Your task to perform on an android device: turn on notifications settings in the gmail app Image 0: 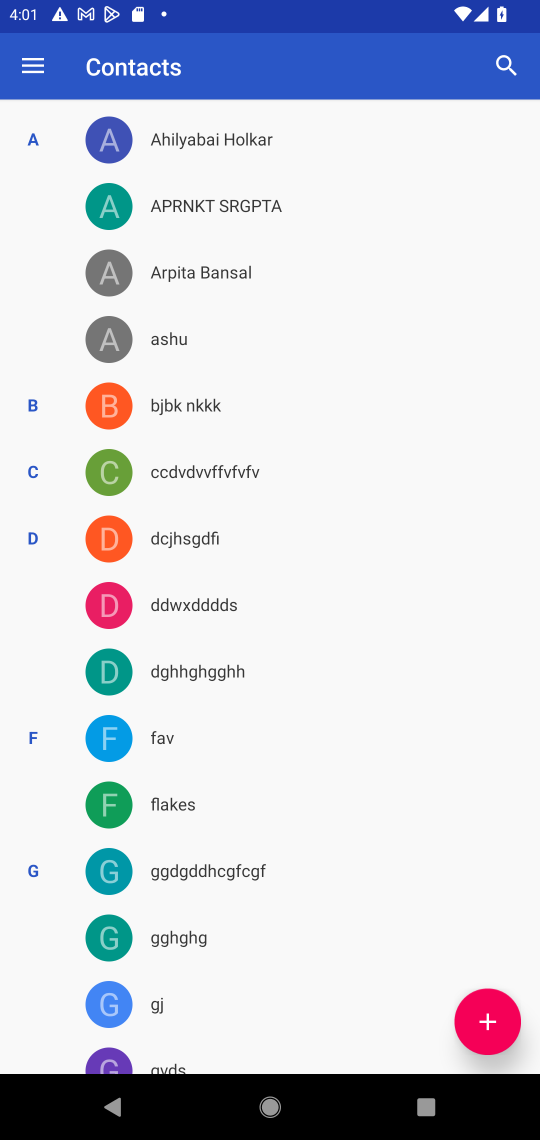
Step 0: press home button
Your task to perform on an android device: turn on notifications settings in the gmail app Image 1: 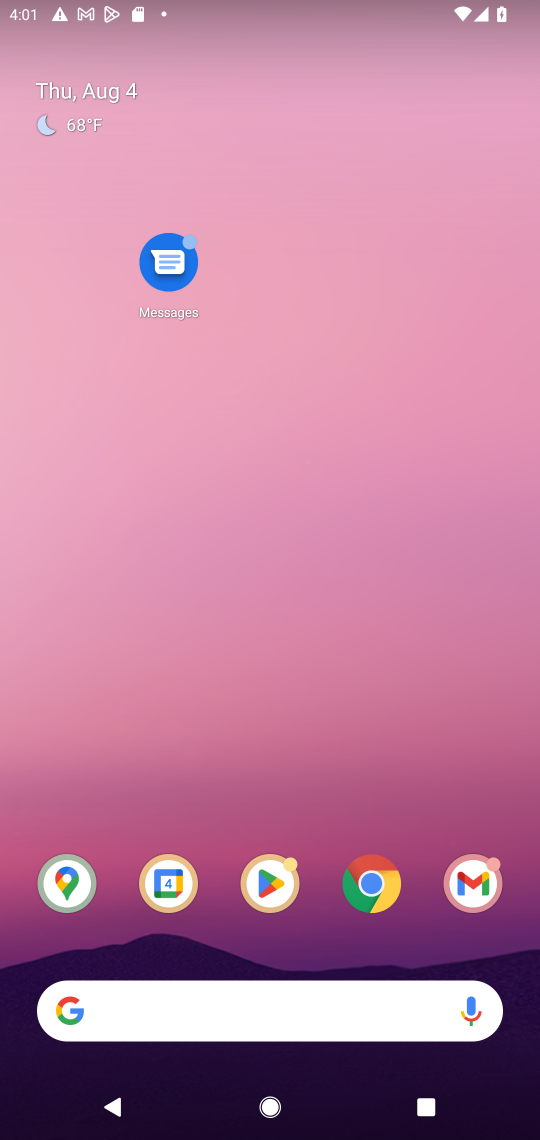
Step 1: drag from (328, 974) to (320, 88)
Your task to perform on an android device: turn on notifications settings in the gmail app Image 2: 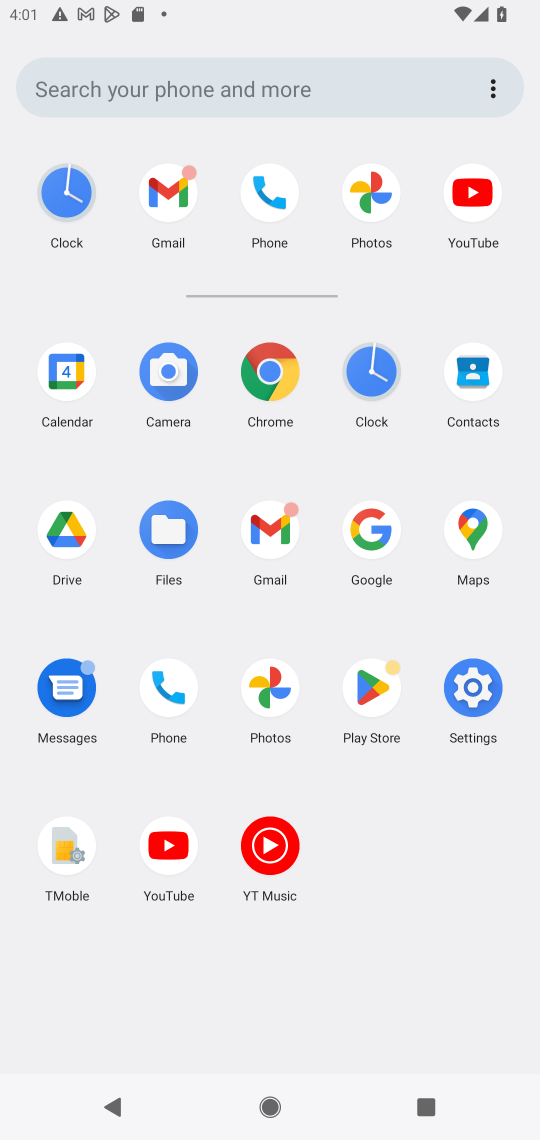
Step 2: click (271, 526)
Your task to perform on an android device: turn on notifications settings in the gmail app Image 3: 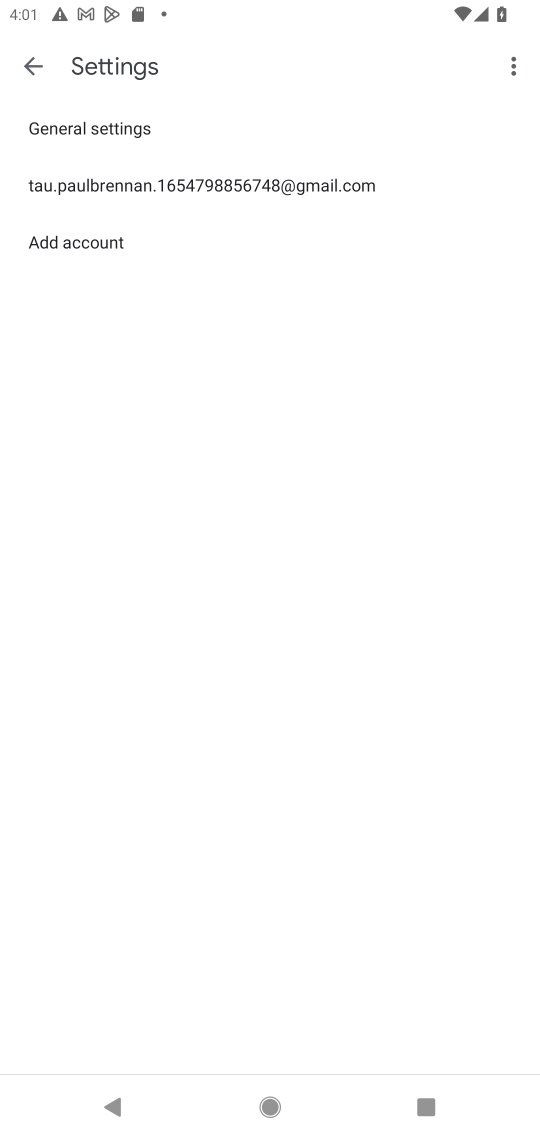
Step 3: click (126, 187)
Your task to perform on an android device: turn on notifications settings in the gmail app Image 4: 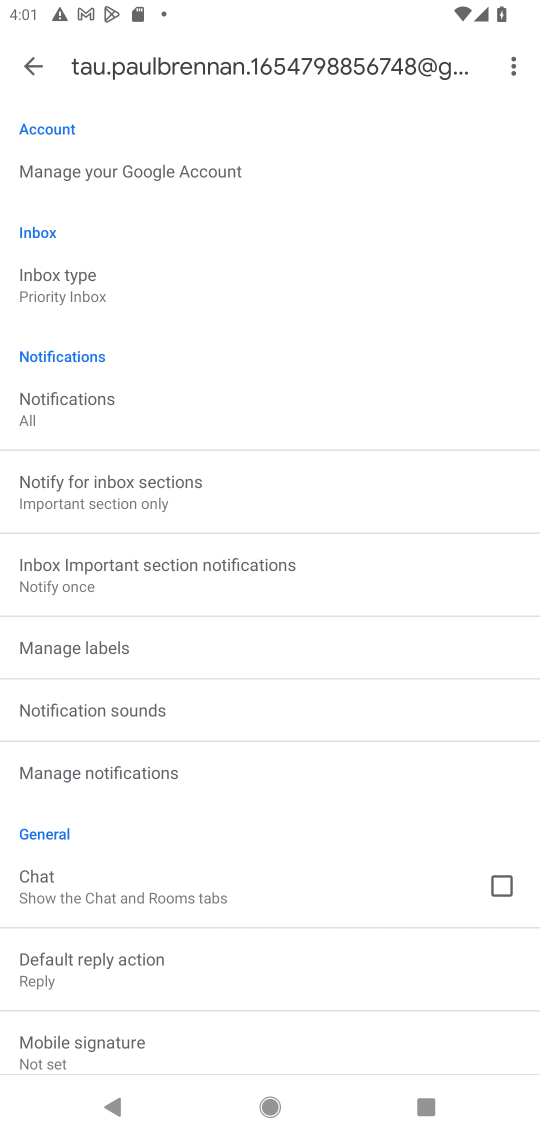
Step 4: task complete